Your task to perform on an android device: change the clock display to analog Image 0: 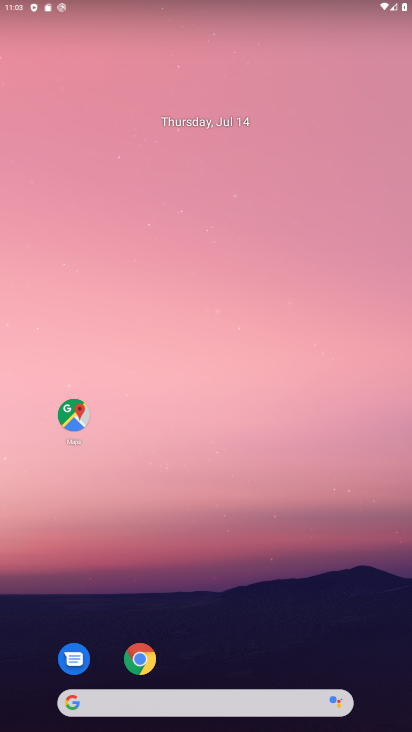
Step 0: drag from (286, 662) to (282, 200)
Your task to perform on an android device: change the clock display to analog Image 1: 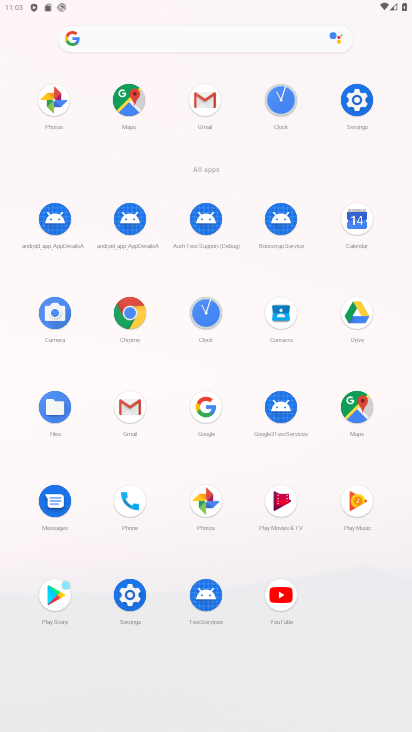
Step 1: click (281, 97)
Your task to perform on an android device: change the clock display to analog Image 2: 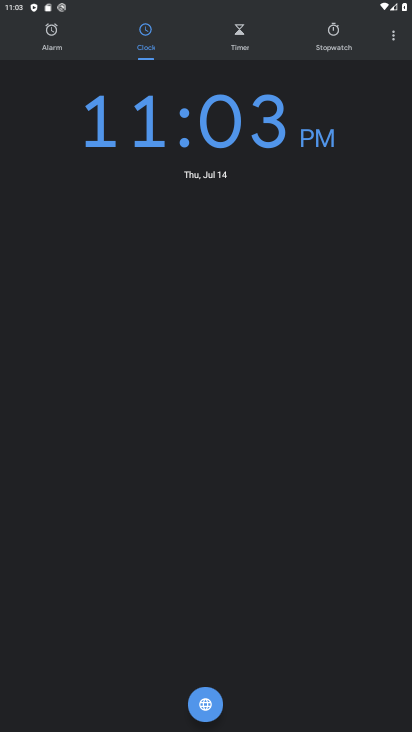
Step 2: click (391, 39)
Your task to perform on an android device: change the clock display to analog Image 3: 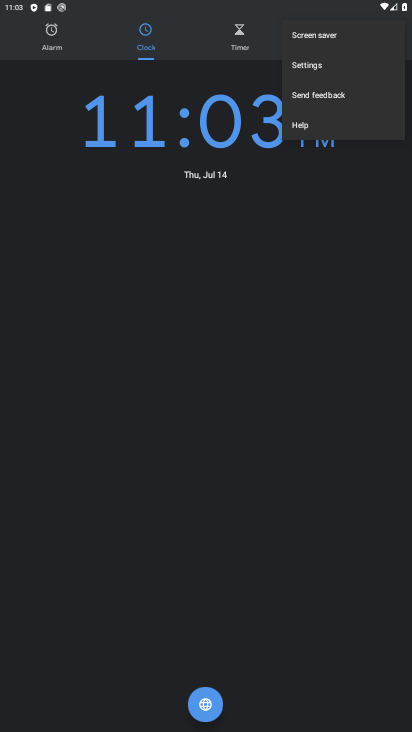
Step 3: click (314, 60)
Your task to perform on an android device: change the clock display to analog Image 4: 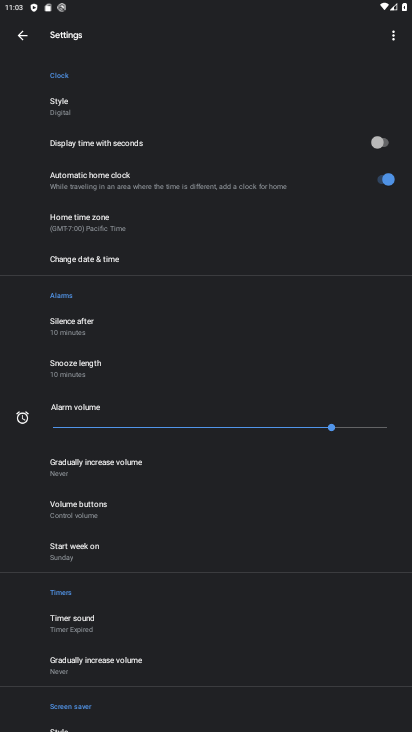
Step 4: click (89, 108)
Your task to perform on an android device: change the clock display to analog Image 5: 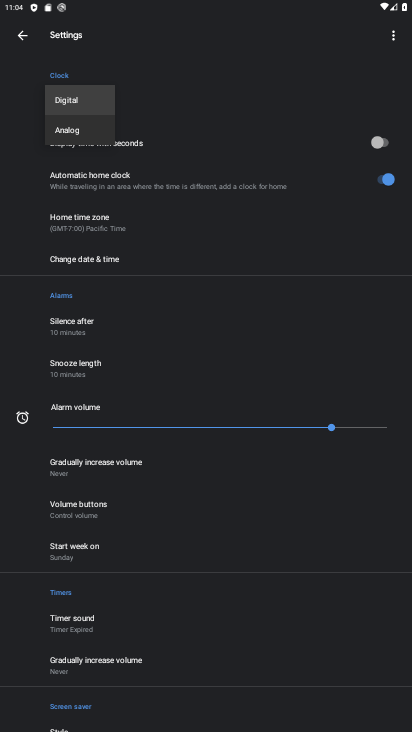
Step 5: click (91, 127)
Your task to perform on an android device: change the clock display to analog Image 6: 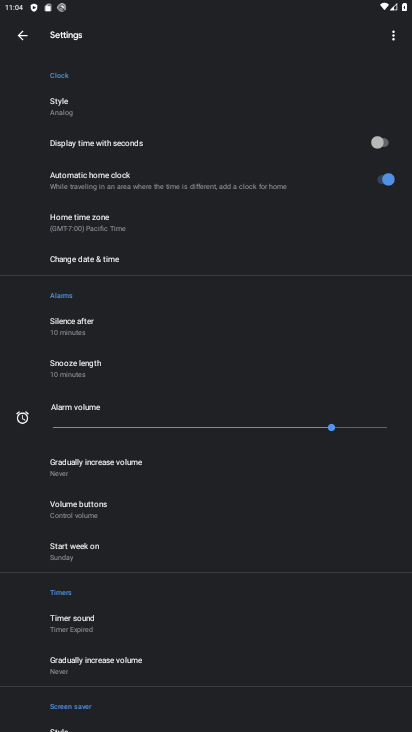
Step 6: task complete